Your task to perform on an android device: Do I have any events tomorrow? Image 0: 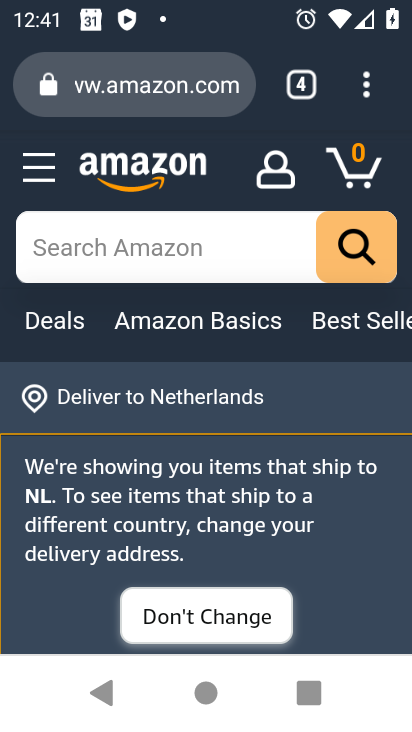
Step 0: press back button
Your task to perform on an android device: Do I have any events tomorrow? Image 1: 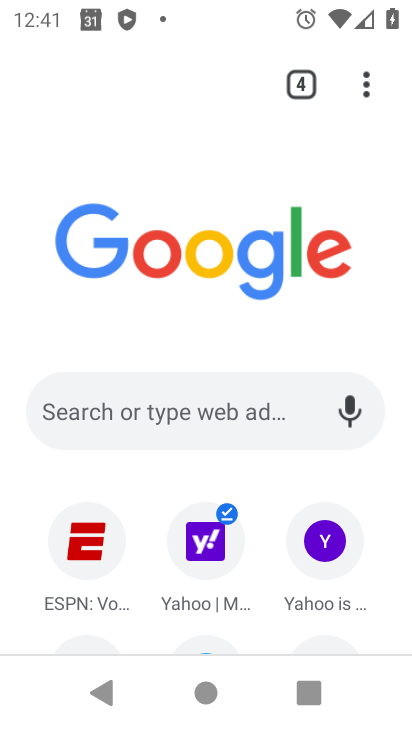
Step 1: press back button
Your task to perform on an android device: Do I have any events tomorrow? Image 2: 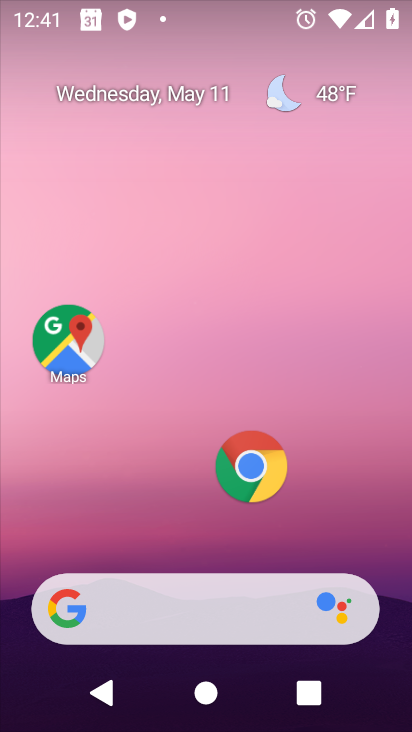
Step 2: drag from (122, 546) to (252, 69)
Your task to perform on an android device: Do I have any events tomorrow? Image 3: 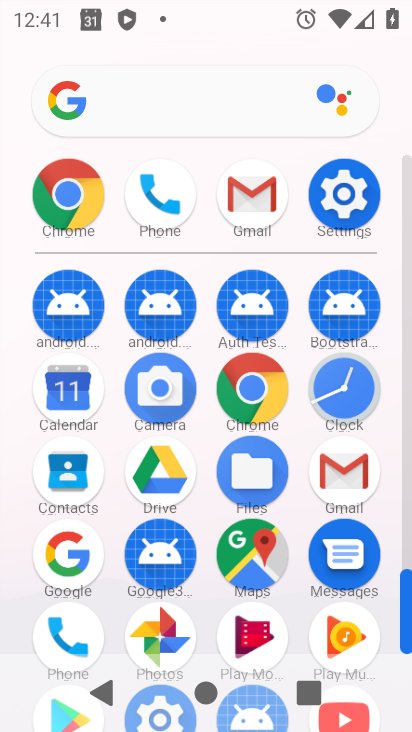
Step 3: click (70, 384)
Your task to perform on an android device: Do I have any events tomorrow? Image 4: 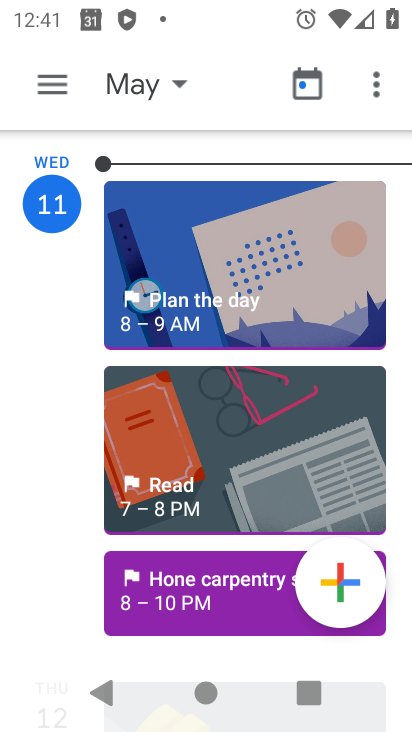
Step 4: click (146, 91)
Your task to perform on an android device: Do I have any events tomorrow? Image 5: 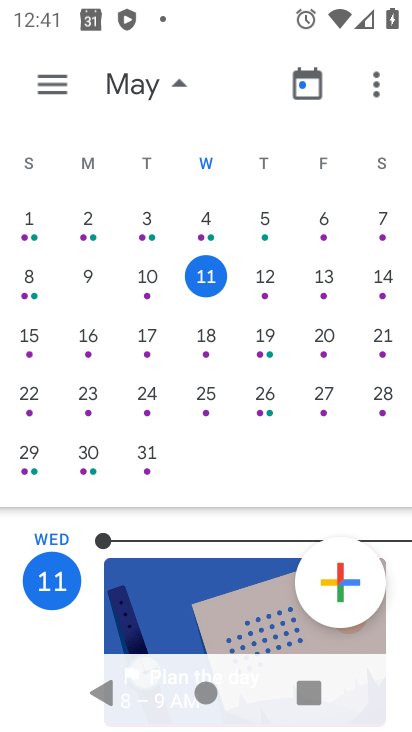
Step 5: click (212, 279)
Your task to perform on an android device: Do I have any events tomorrow? Image 6: 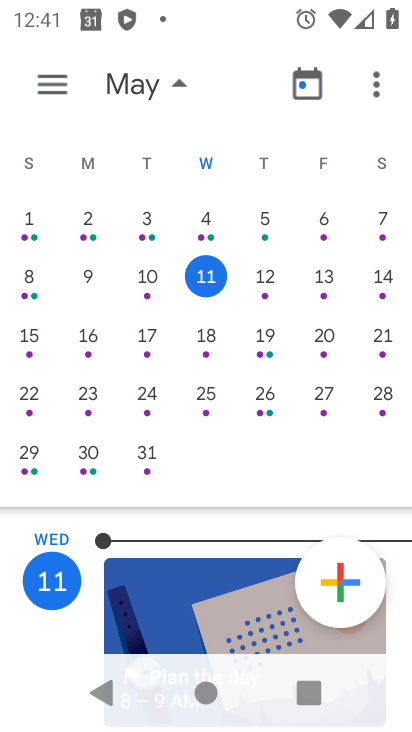
Step 6: drag from (185, 618) to (316, 79)
Your task to perform on an android device: Do I have any events tomorrow? Image 7: 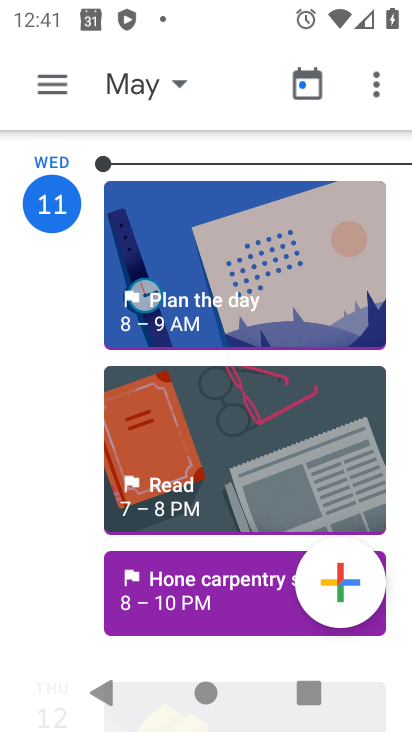
Step 7: drag from (196, 580) to (331, 11)
Your task to perform on an android device: Do I have any events tomorrow? Image 8: 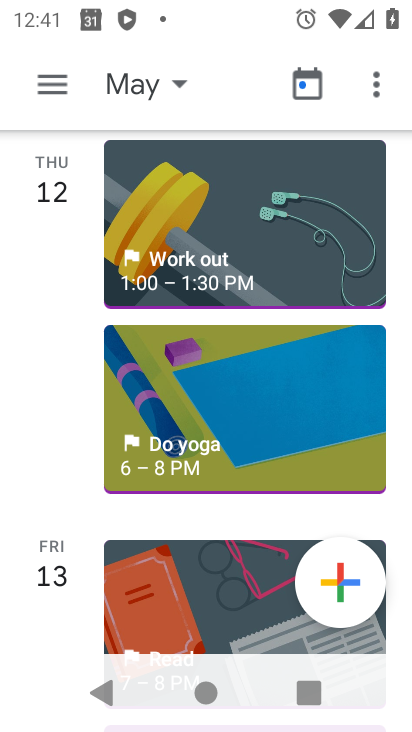
Step 8: click (197, 256)
Your task to perform on an android device: Do I have any events tomorrow? Image 9: 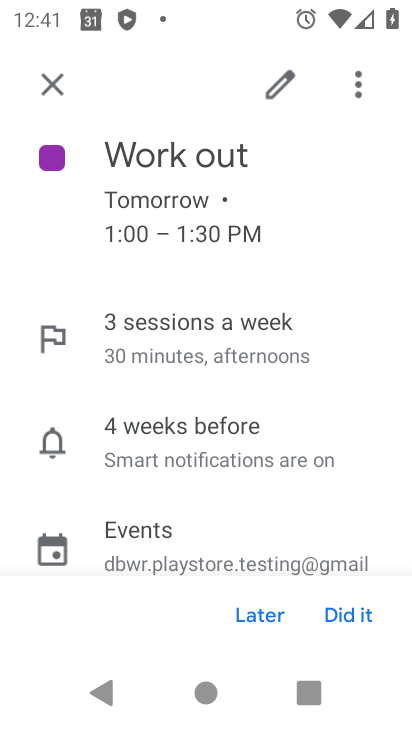
Step 9: task complete